Your task to perform on an android device: change keyboard looks Image 0: 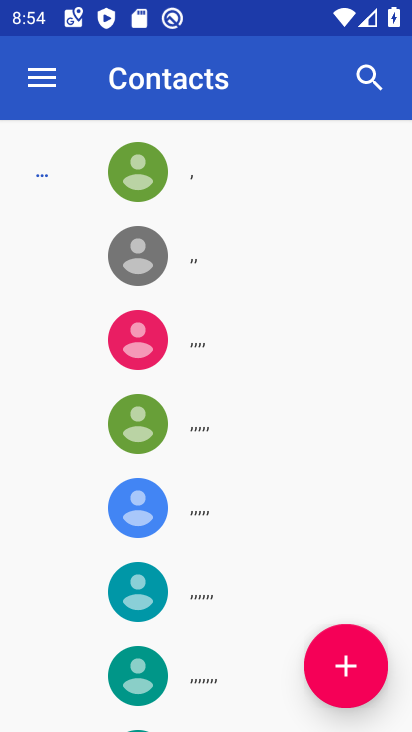
Step 0: press home button
Your task to perform on an android device: change keyboard looks Image 1: 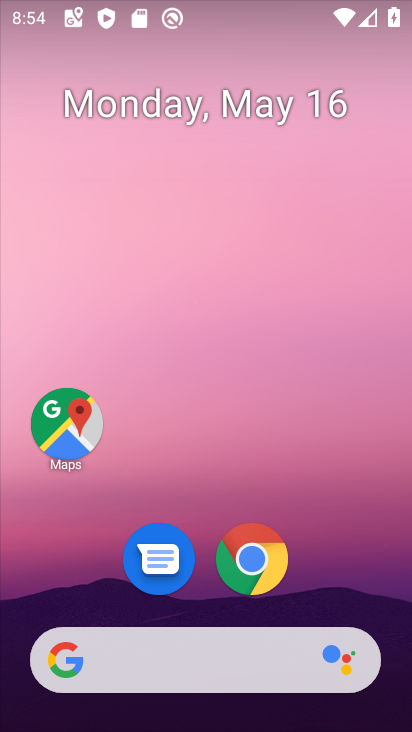
Step 1: drag from (319, 515) to (323, 37)
Your task to perform on an android device: change keyboard looks Image 2: 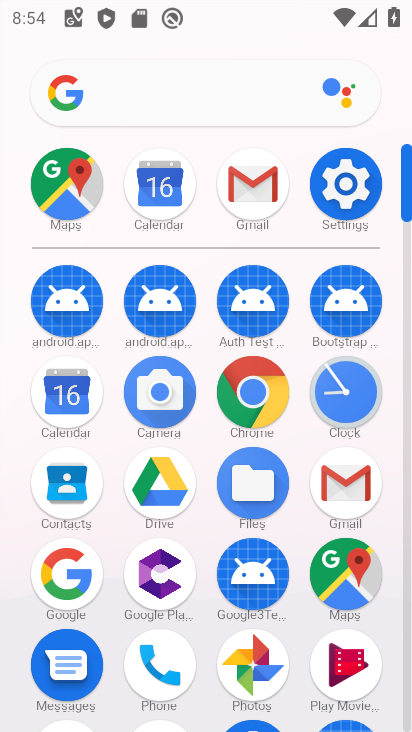
Step 2: click (342, 176)
Your task to perform on an android device: change keyboard looks Image 3: 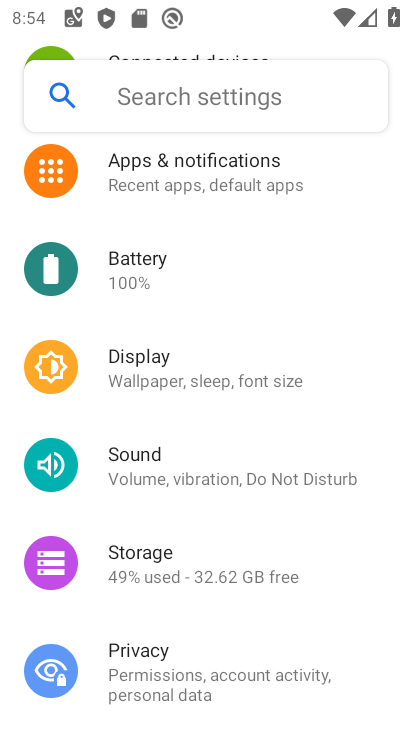
Step 3: drag from (209, 455) to (209, 290)
Your task to perform on an android device: change keyboard looks Image 4: 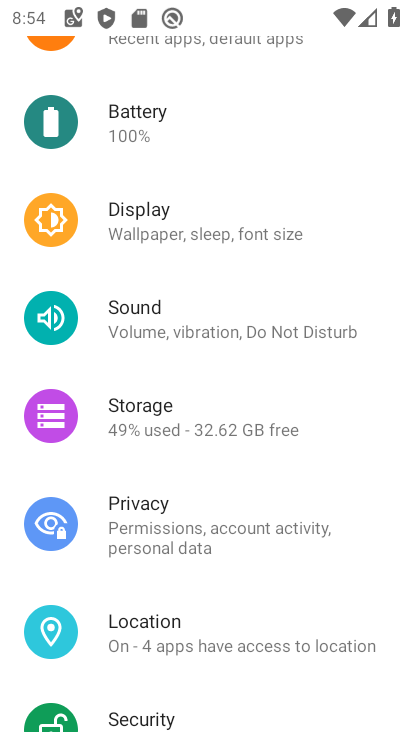
Step 4: drag from (168, 447) to (165, 288)
Your task to perform on an android device: change keyboard looks Image 5: 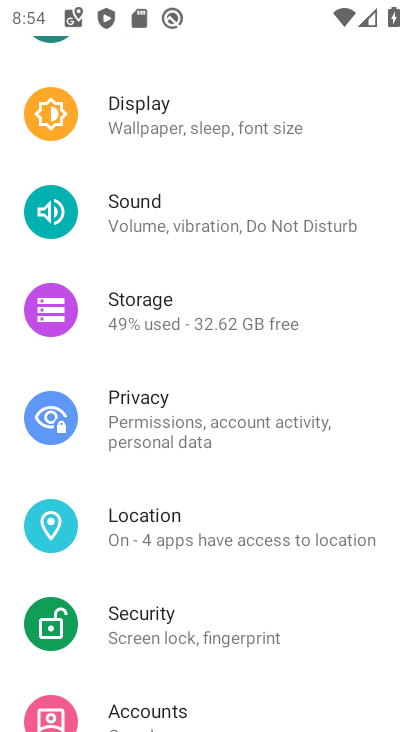
Step 5: drag from (278, 632) to (282, 444)
Your task to perform on an android device: change keyboard looks Image 6: 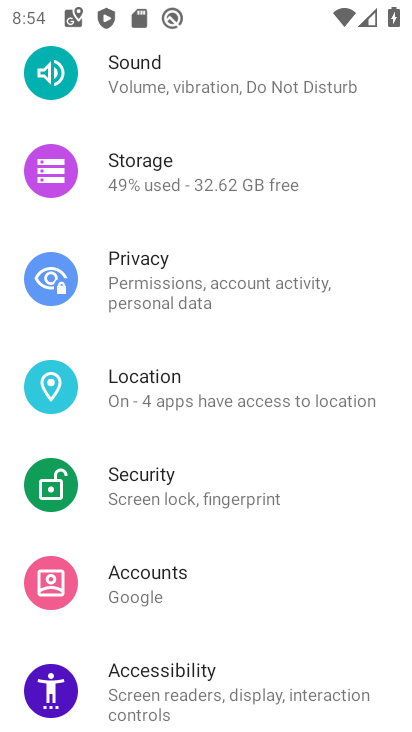
Step 6: drag from (194, 689) to (214, 459)
Your task to perform on an android device: change keyboard looks Image 7: 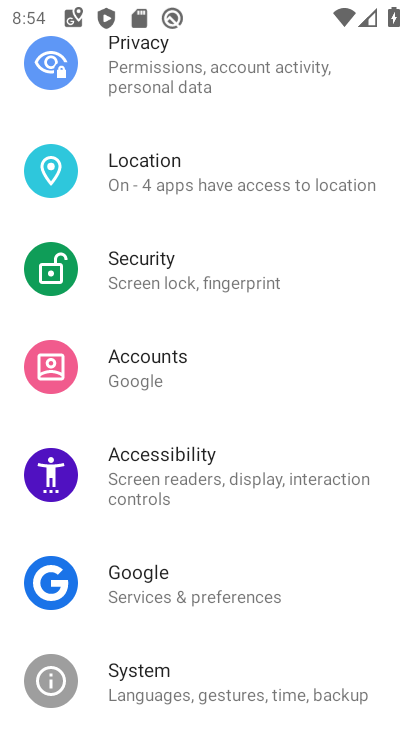
Step 7: click (147, 689)
Your task to perform on an android device: change keyboard looks Image 8: 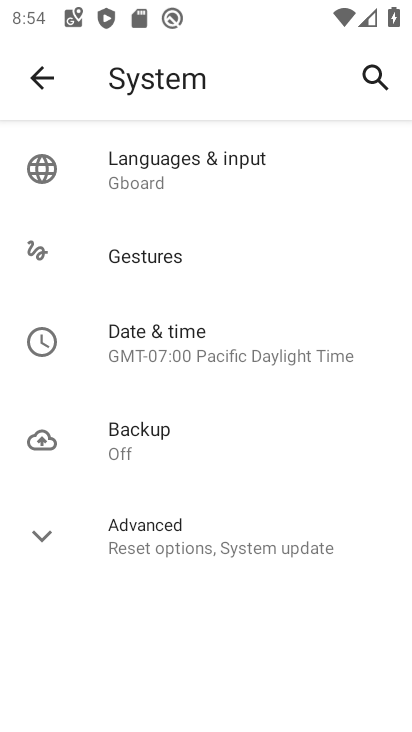
Step 8: click (303, 141)
Your task to perform on an android device: change keyboard looks Image 9: 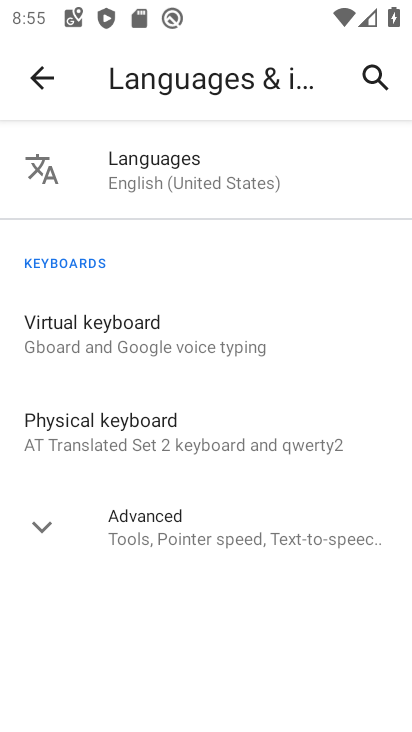
Step 9: click (175, 327)
Your task to perform on an android device: change keyboard looks Image 10: 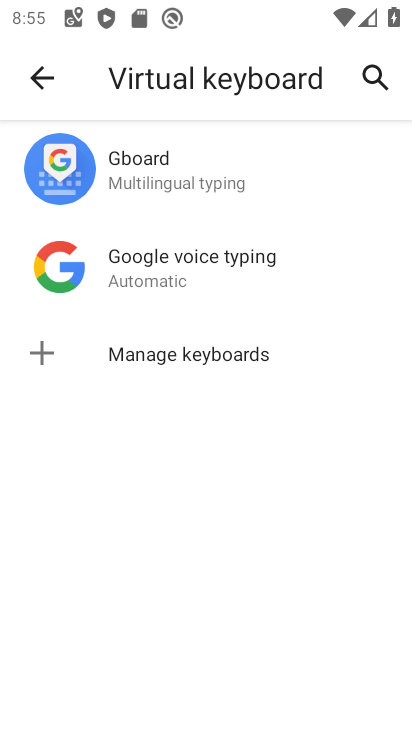
Step 10: click (297, 158)
Your task to perform on an android device: change keyboard looks Image 11: 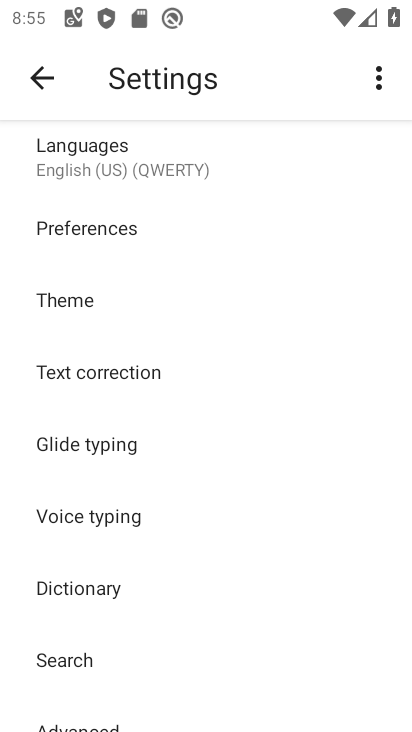
Step 11: click (142, 296)
Your task to perform on an android device: change keyboard looks Image 12: 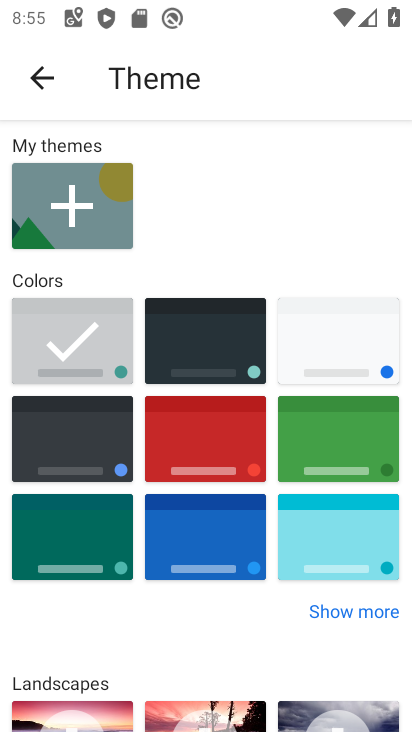
Step 12: click (207, 547)
Your task to perform on an android device: change keyboard looks Image 13: 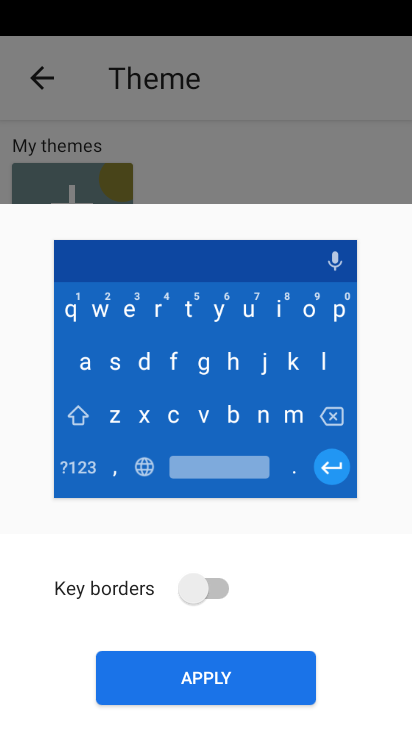
Step 13: click (253, 670)
Your task to perform on an android device: change keyboard looks Image 14: 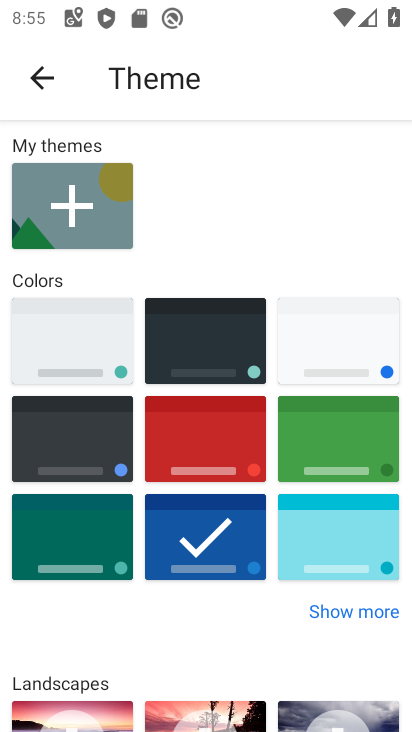
Step 14: task complete